Your task to perform on an android device: Check the news Image 0: 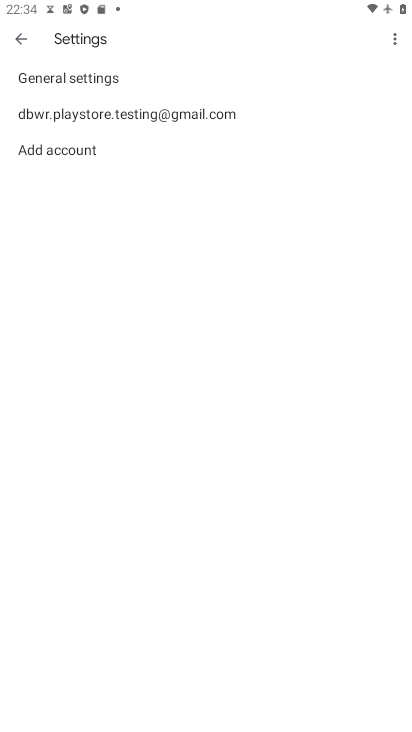
Step 0: press home button
Your task to perform on an android device: Check the news Image 1: 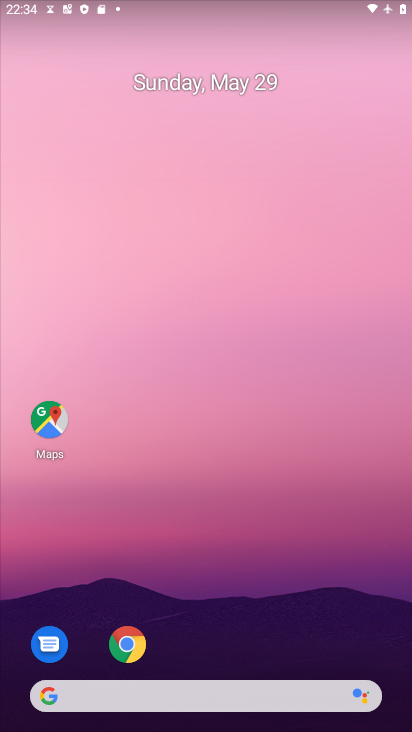
Step 1: click (122, 637)
Your task to perform on an android device: Check the news Image 2: 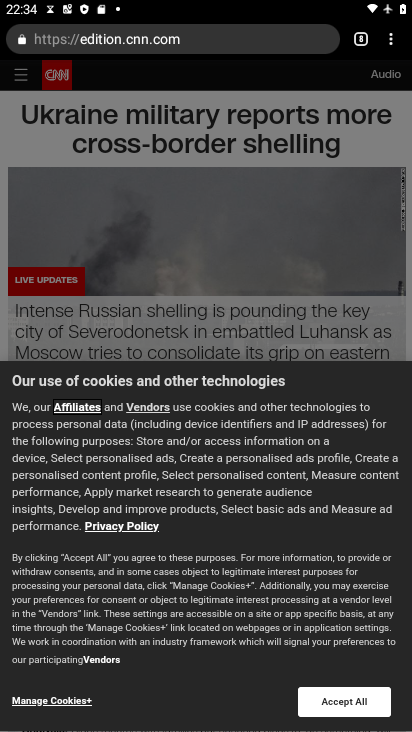
Step 2: click (389, 35)
Your task to perform on an android device: Check the news Image 3: 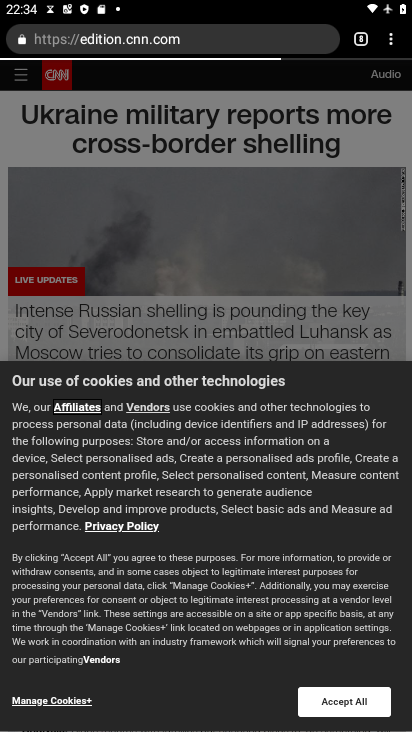
Step 3: click (389, 45)
Your task to perform on an android device: Check the news Image 4: 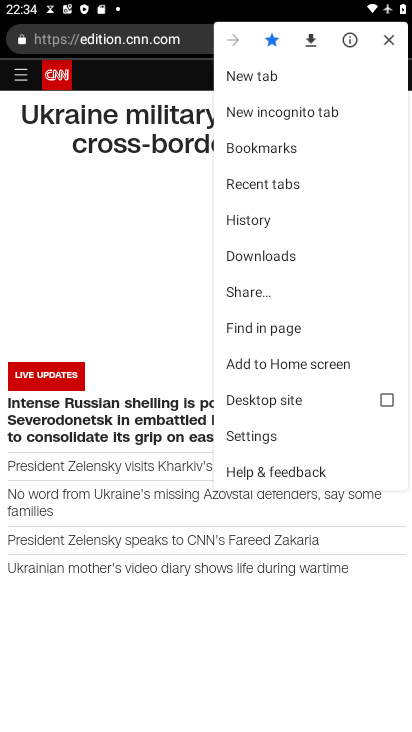
Step 4: click (308, 75)
Your task to perform on an android device: Check the news Image 5: 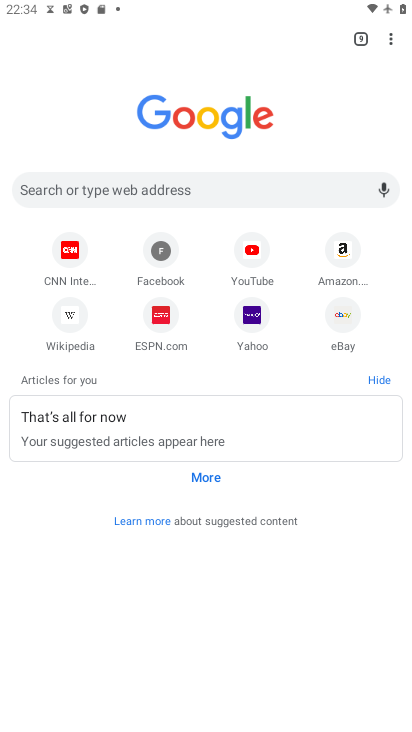
Step 5: click (160, 186)
Your task to perform on an android device: Check the news Image 6: 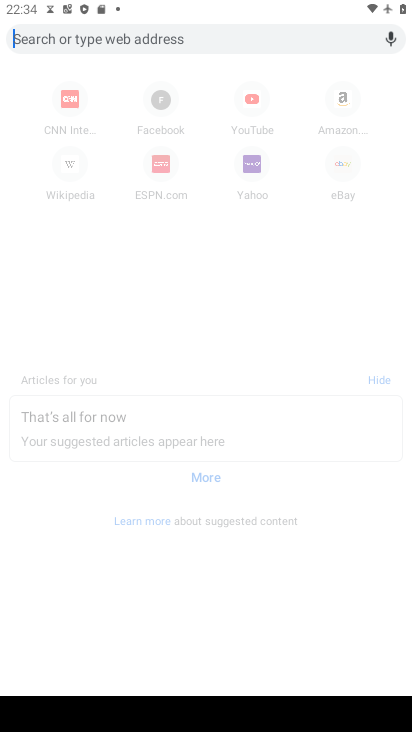
Step 6: type "Check the news"
Your task to perform on an android device: Check the news Image 7: 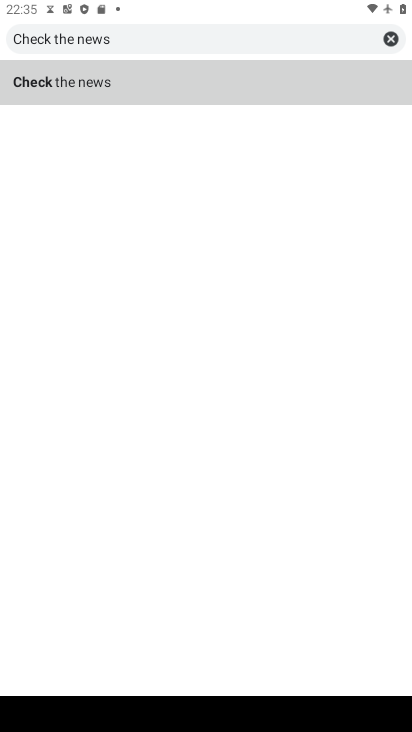
Step 7: click (84, 84)
Your task to perform on an android device: Check the news Image 8: 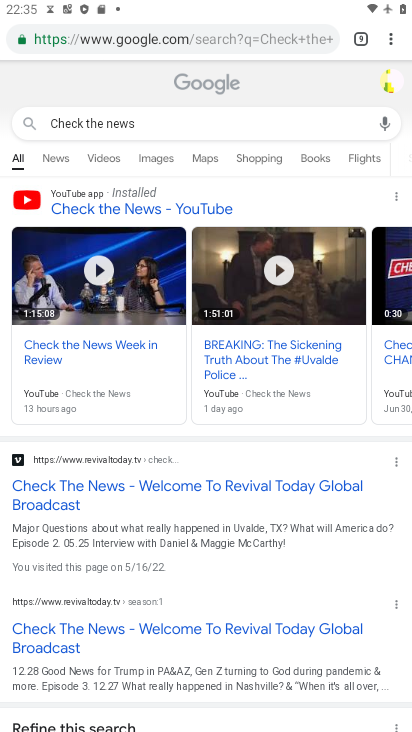
Step 8: task complete